Your task to perform on an android device: Open internet settings Image 0: 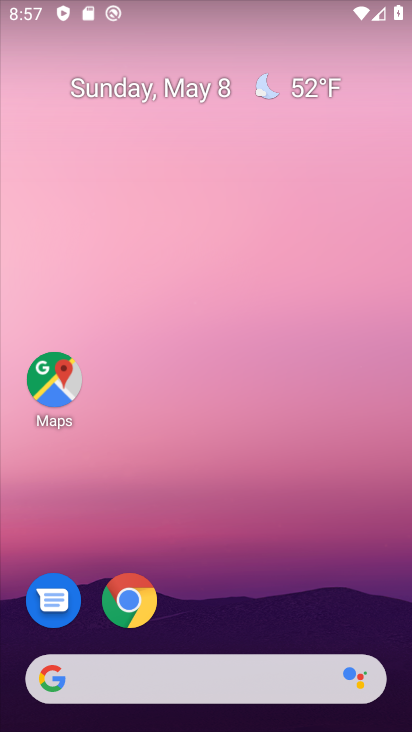
Step 0: drag from (252, 601) to (269, 148)
Your task to perform on an android device: Open internet settings Image 1: 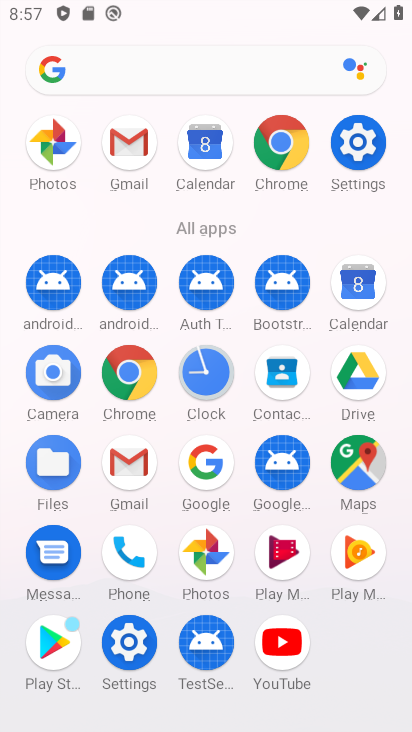
Step 1: click (378, 149)
Your task to perform on an android device: Open internet settings Image 2: 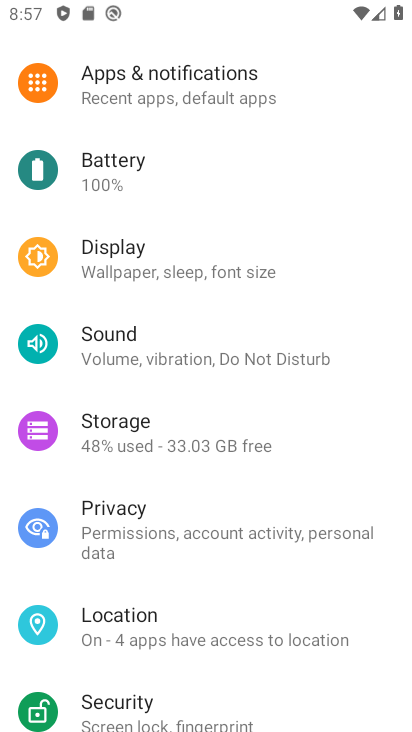
Step 2: drag from (258, 185) to (229, 589)
Your task to perform on an android device: Open internet settings Image 3: 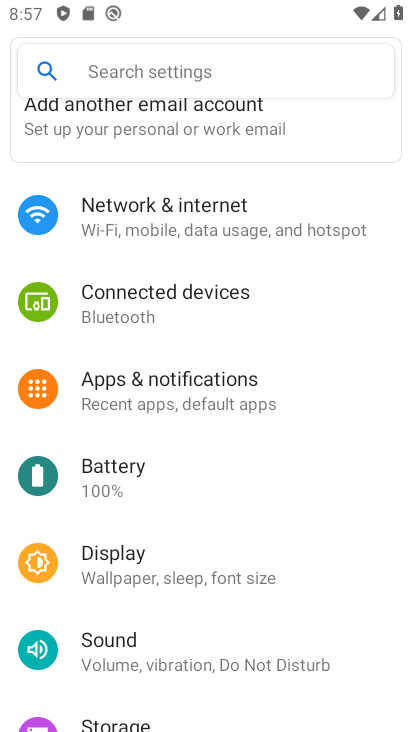
Step 3: click (218, 227)
Your task to perform on an android device: Open internet settings Image 4: 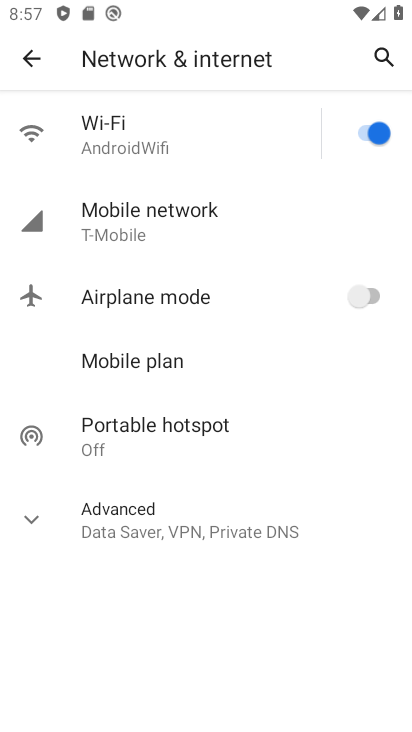
Step 4: task complete